Your task to perform on an android device: choose inbox layout in the gmail app Image 0: 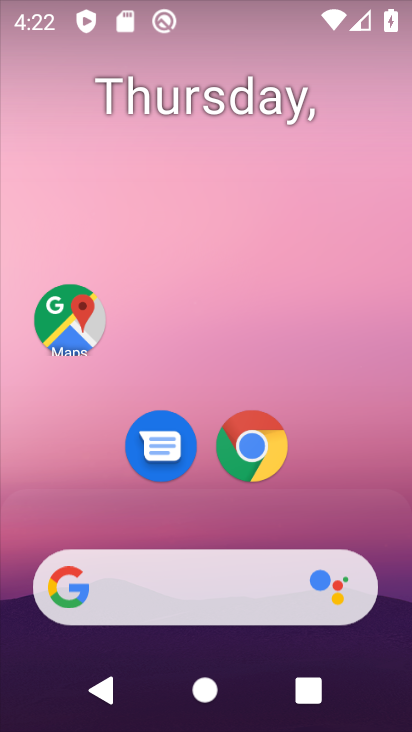
Step 0: drag from (276, 573) to (279, 142)
Your task to perform on an android device: choose inbox layout in the gmail app Image 1: 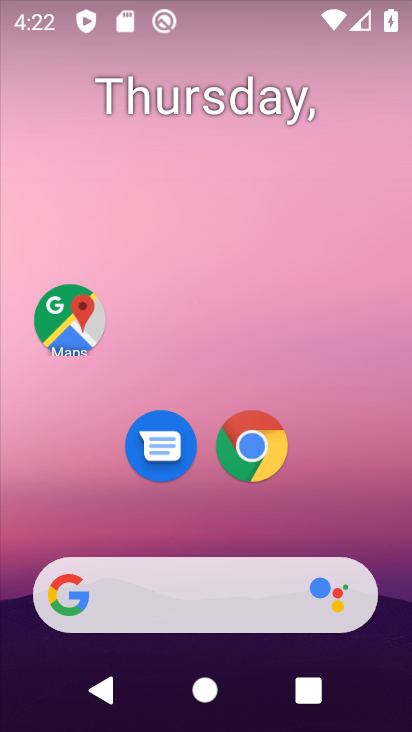
Step 1: drag from (267, 656) to (205, 178)
Your task to perform on an android device: choose inbox layout in the gmail app Image 2: 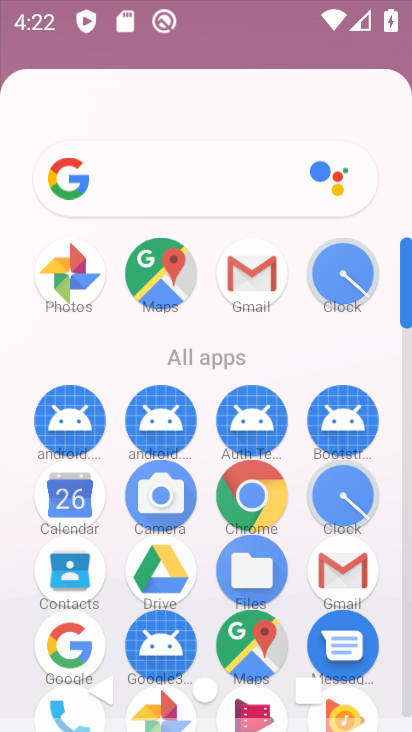
Step 2: drag from (262, 592) to (169, 120)
Your task to perform on an android device: choose inbox layout in the gmail app Image 3: 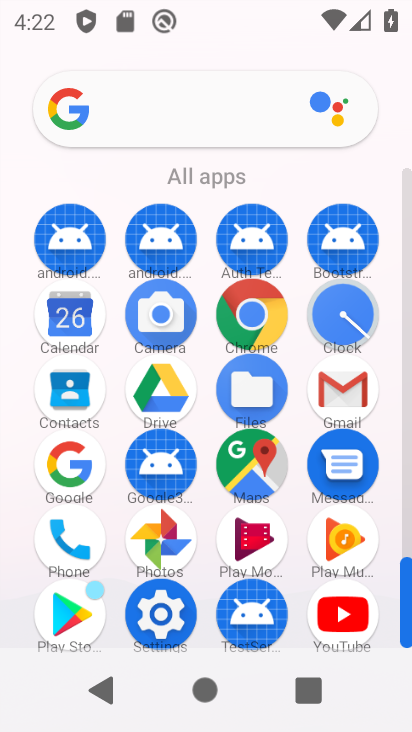
Step 3: drag from (242, 545) to (214, 66)
Your task to perform on an android device: choose inbox layout in the gmail app Image 4: 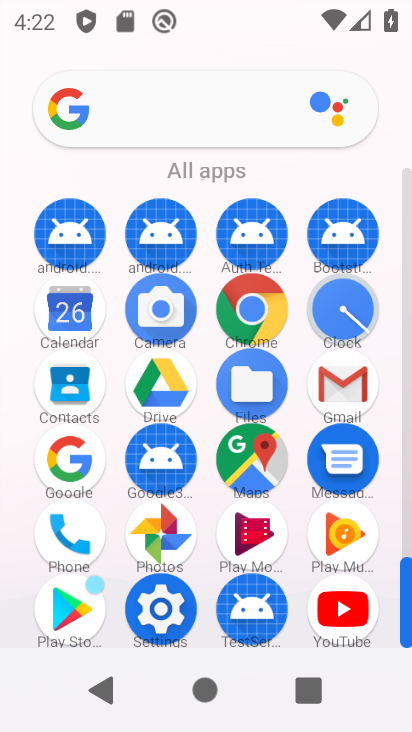
Step 4: click (337, 374)
Your task to perform on an android device: choose inbox layout in the gmail app Image 5: 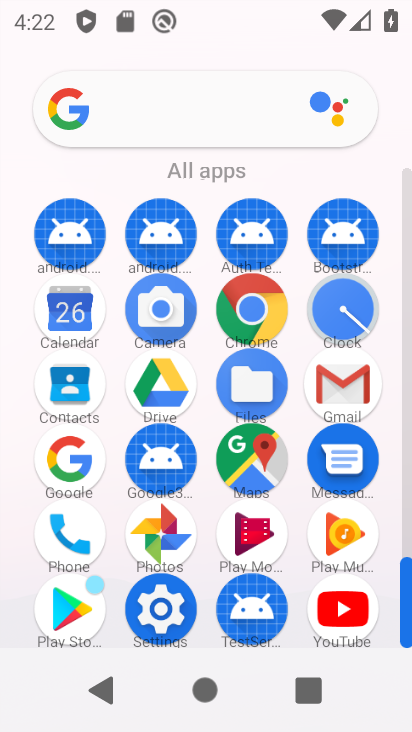
Step 5: click (344, 376)
Your task to perform on an android device: choose inbox layout in the gmail app Image 6: 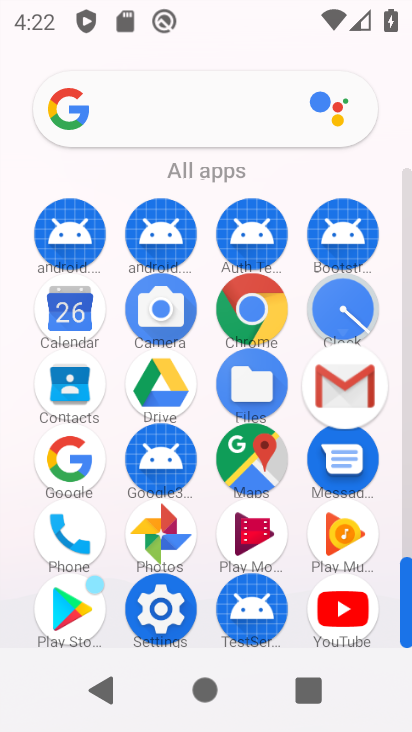
Step 6: click (345, 376)
Your task to perform on an android device: choose inbox layout in the gmail app Image 7: 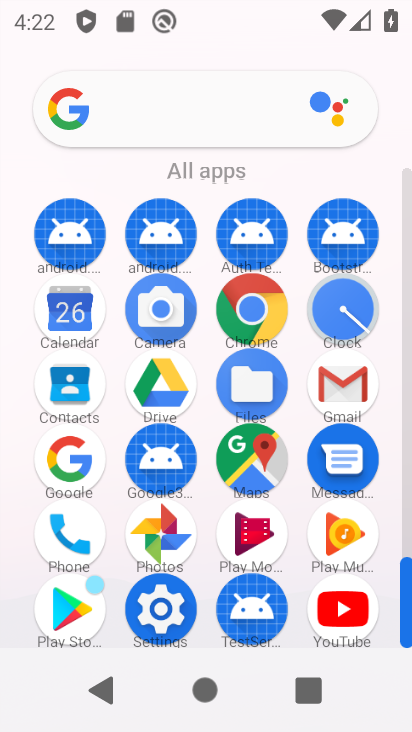
Step 7: click (345, 376)
Your task to perform on an android device: choose inbox layout in the gmail app Image 8: 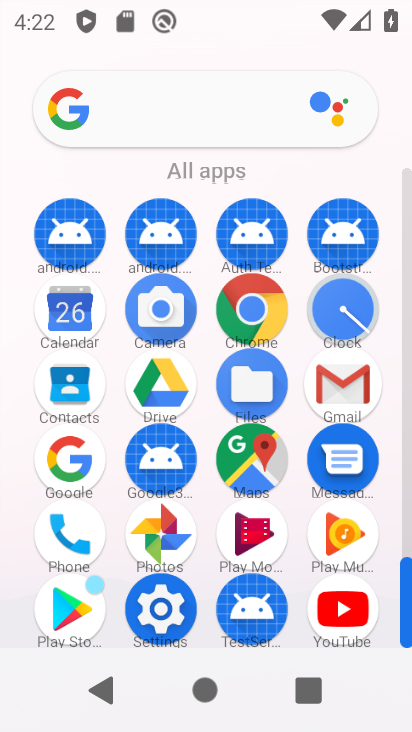
Step 8: click (345, 376)
Your task to perform on an android device: choose inbox layout in the gmail app Image 9: 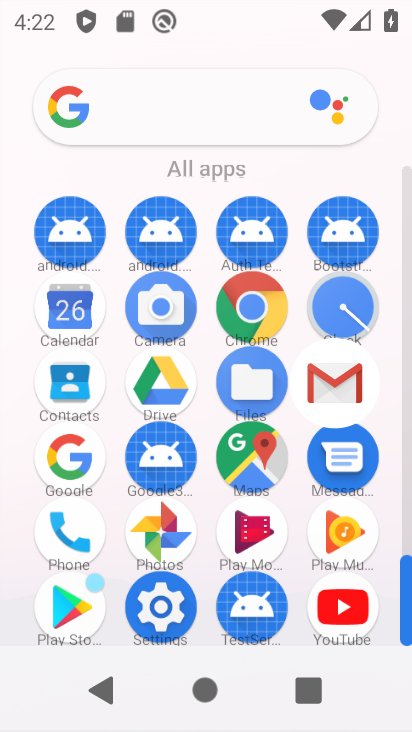
Step 9: click (345, 376)
Your task to perform on an android device: choose inbox layout in the gmail app Image 10: 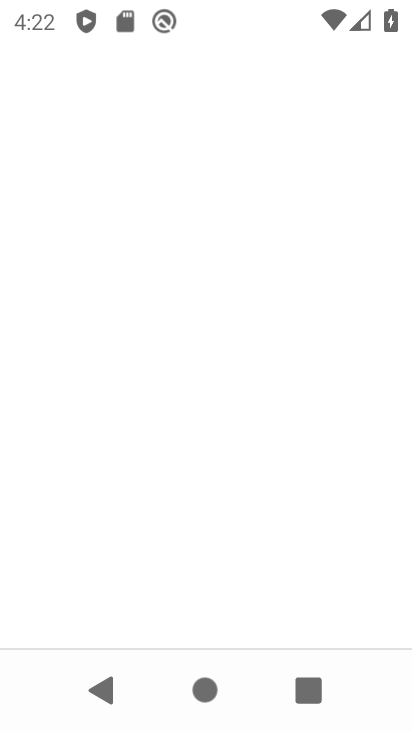
Step 10: click (348, 380)
Your task to perform on an android device: choose inbox layout in the gmail app Image 11: 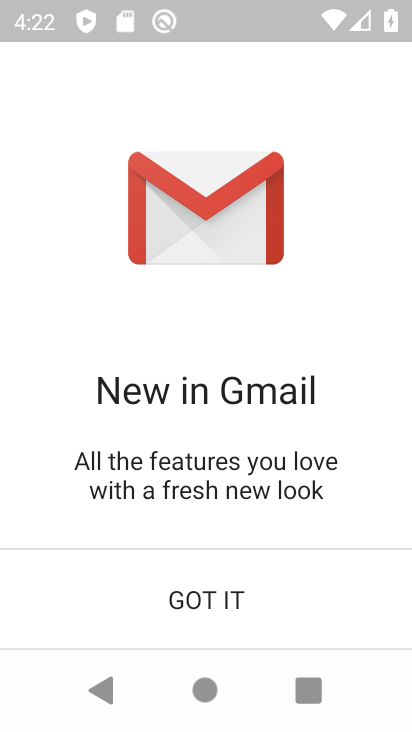
Step 11: click (198, 590)
Your task to perform on an android device: choose inbox layout in the gmail app Image 12: 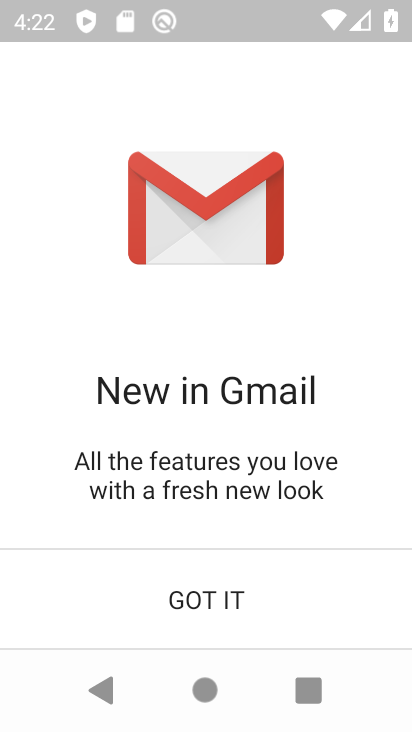
Step 12: click (200, 592)
Your task to perform on an android device: choose inbox layout in the gmail app Image 13: 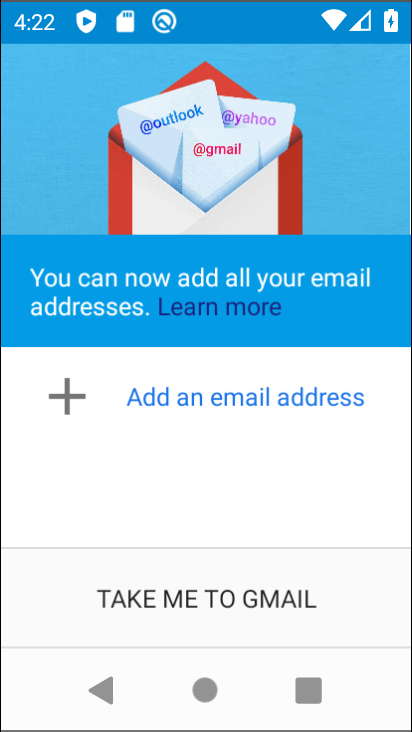
Step 13: click (200, 592)
Your task to perform on an android device: choose inbox layout in the gmail app Image 14: 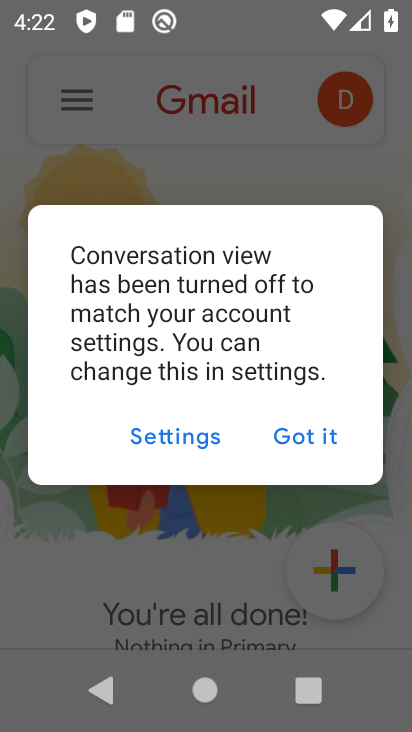
Step 14: click (178, 427)
Your task to perform on an android device: choose inbox layout in the gmail app Image 15: 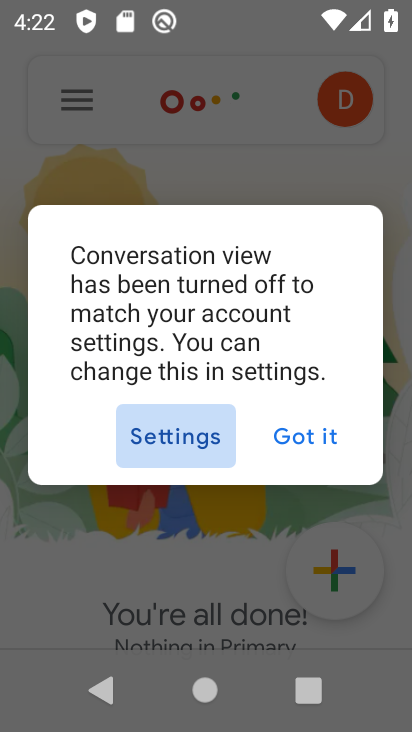
Step 15: click (188, 433)
Your task to perform on an android device: choose inbox layout in the gmail app Image 16: 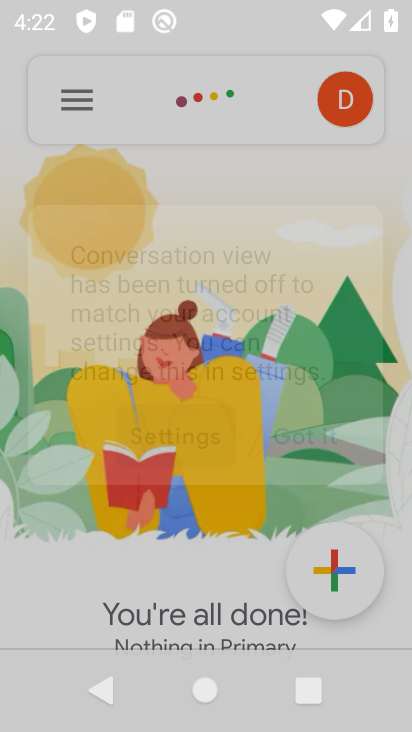
Step 16: click (192, 434)
Your task to perform on an android device: choose inbox layout in the gmail app Image 17: 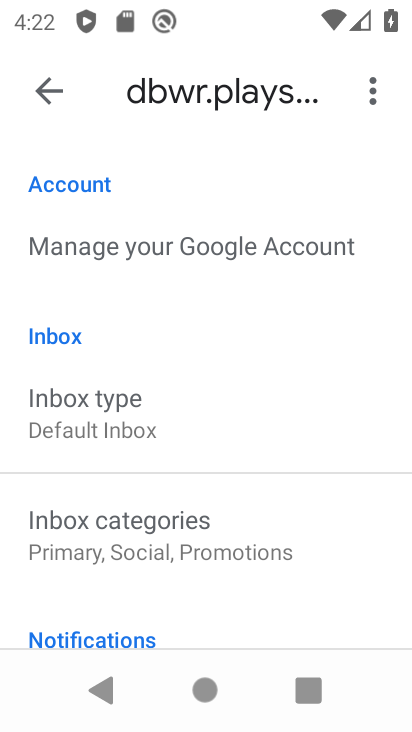
Step 17: task complete